Your task to perform on an android device: set an alarm Image 0: 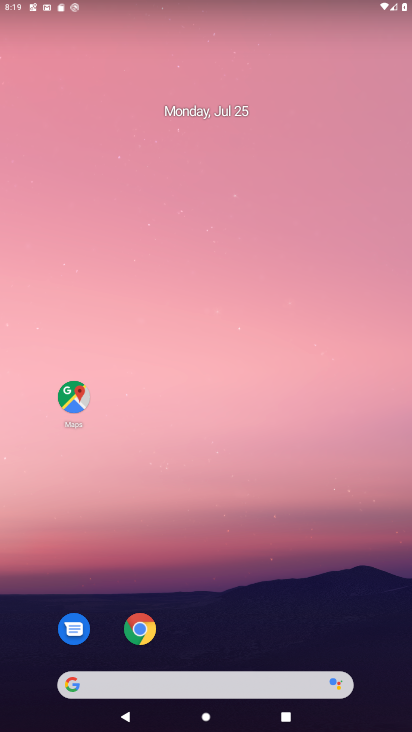
Step 0: drag from (204, 673) to (223, 84)
Your task to perform on an android device: set an alarm Image 1: 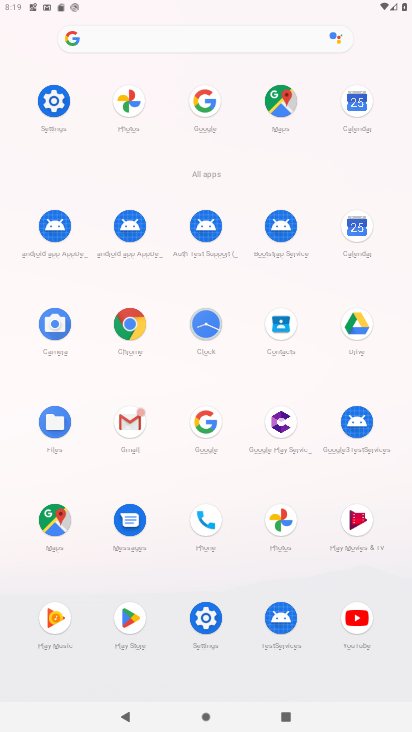
Step 1: click (208, 324)
Your task to perform on an android device: set an alarm Image 2: 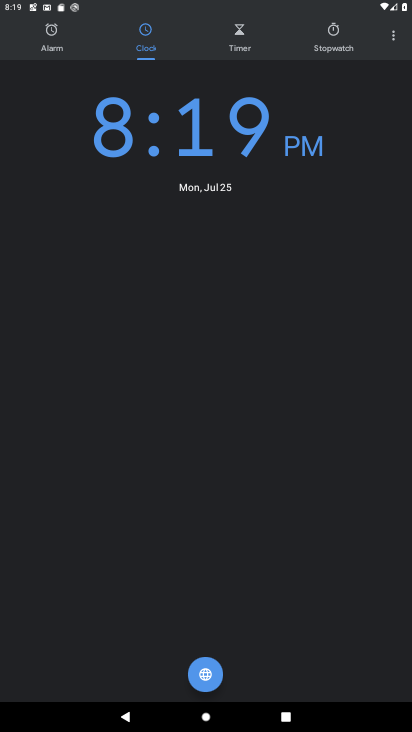
Step 2: click (55, 33)
Your task to perform on an android device: set an alarm Image 3: 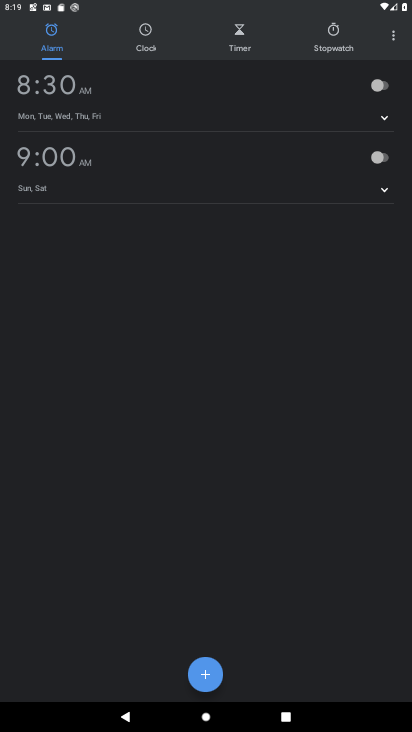
Step 3: click (206, 675)
Your task to perform on an android device: set an alarm Image 4: 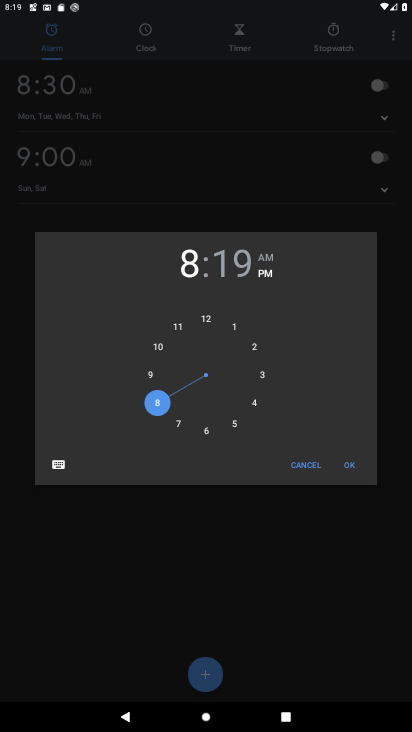
Step 4: click (209, 324)
Your task to perform on an android device: set an alarm Image 5: 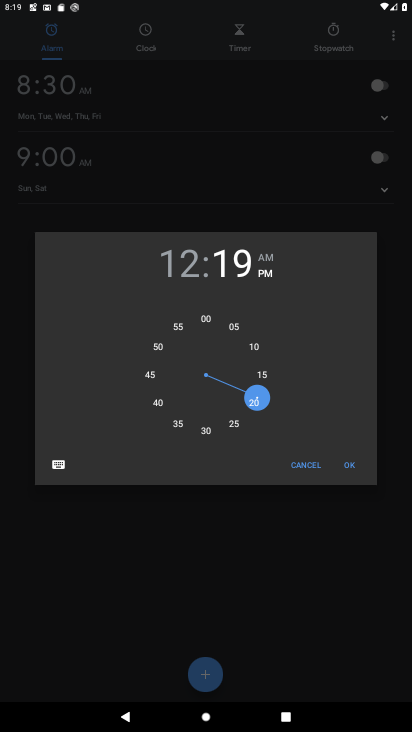
Step 5: click (203, 324)
Your task to perform on an android device: set an alarm Image 6: 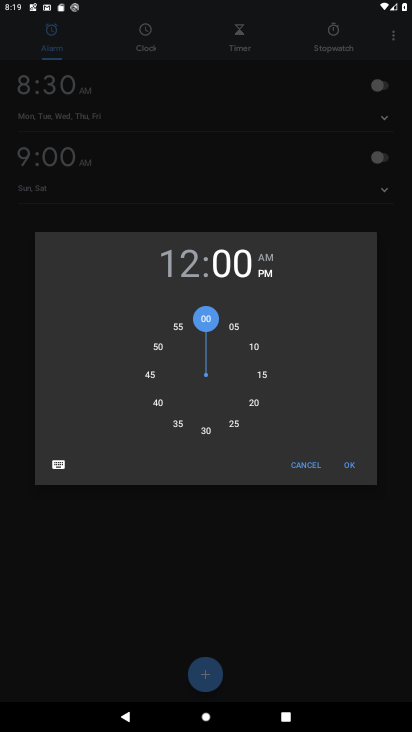
Step 6: click (347, 468)
Your task to perform on an android device: set an alarm Image 7: 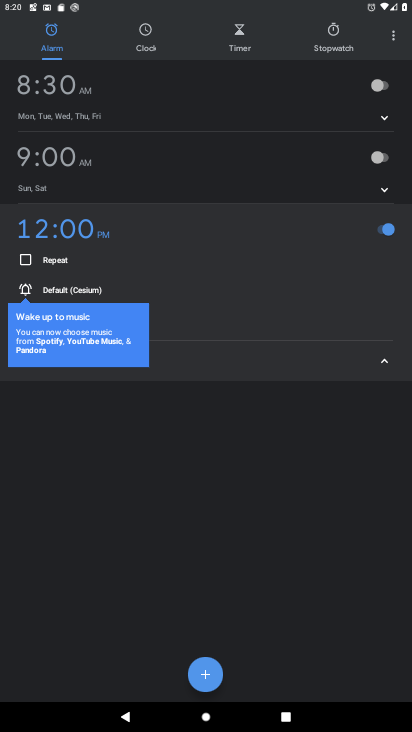
Step 7: task complete